Your task to perform on an android device: snooze an email in the gmail app Image 0: 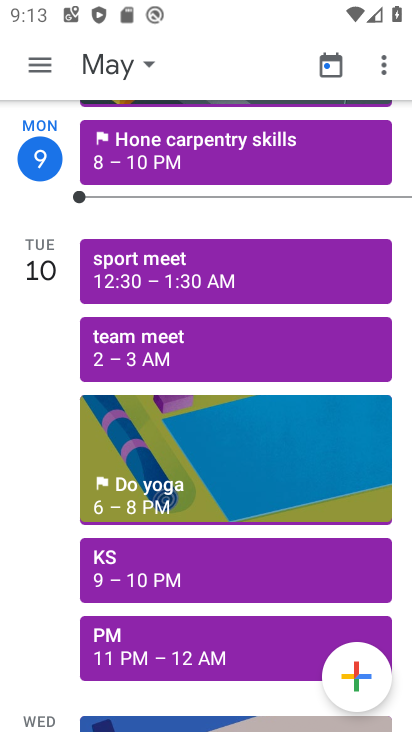
Step 0: press home button
Your task to perform on an android device: snooze an email in the gmail app Image 1: 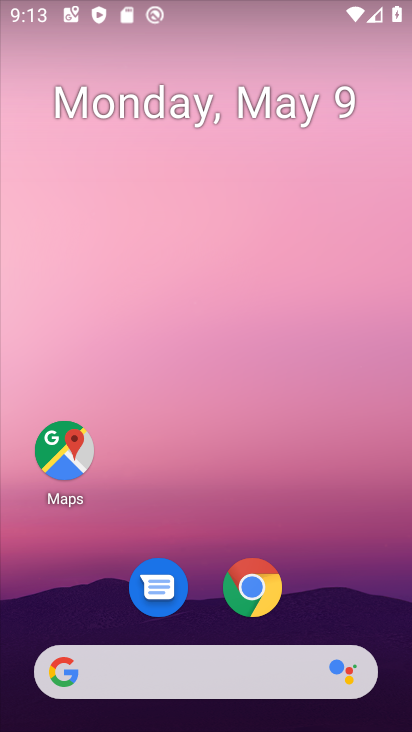
Step 1: drag from (205, 617) to (249, 63)
Your task to perform on an android device: snooze an email in the gmail app Image 2: 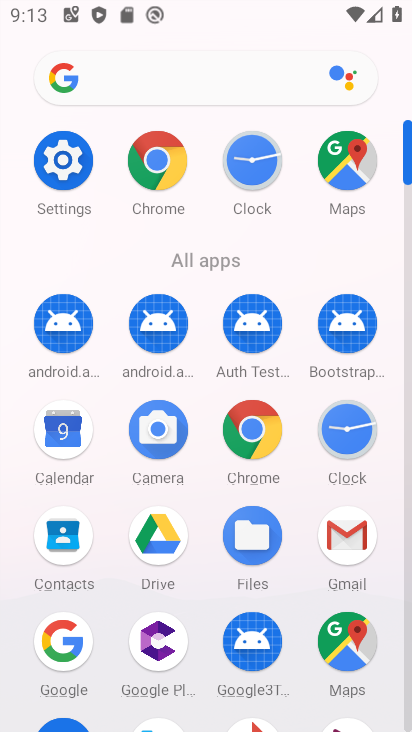
Step 2: click (367, 532)
Your task to perform on an android device: snooze an email in the gmail app Image 3: 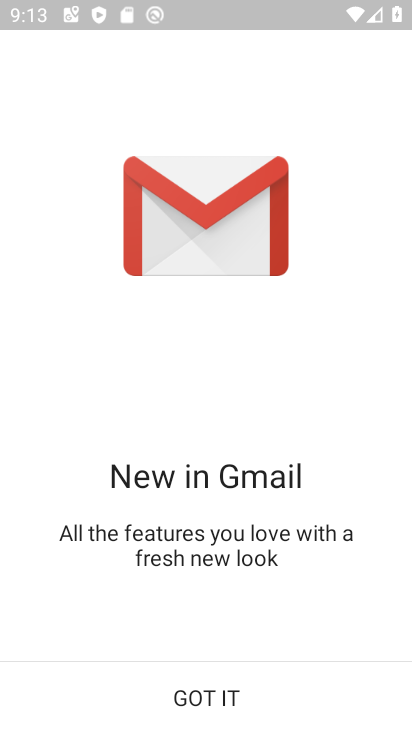
Step 3: click (210, 699)
Your task to perform on an android device: snooze an email in the gmail app Image 4: 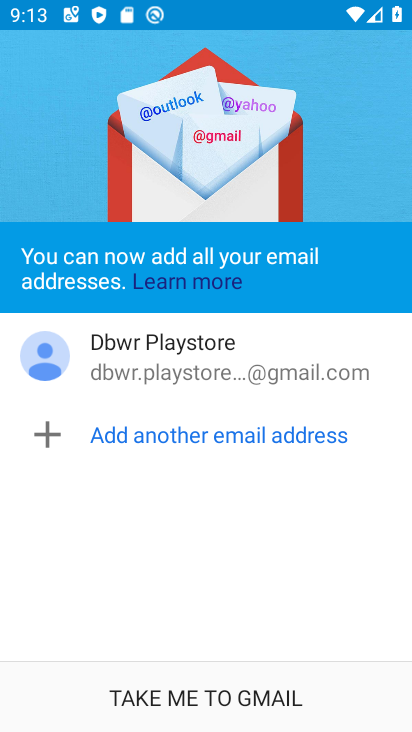
Step 4: click (210, 699)
Your task to perform on an android device: snooze an email in the gmail app Image 5: 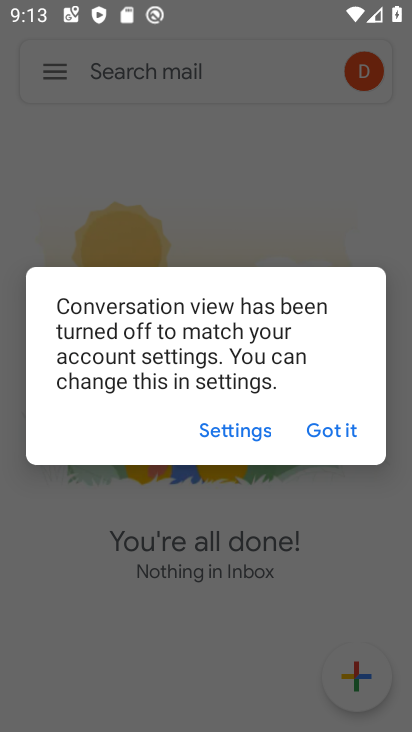
Step 5: click (330, 423)
Your task to perform on an android device: snooze an email in the gmail app Image 6: 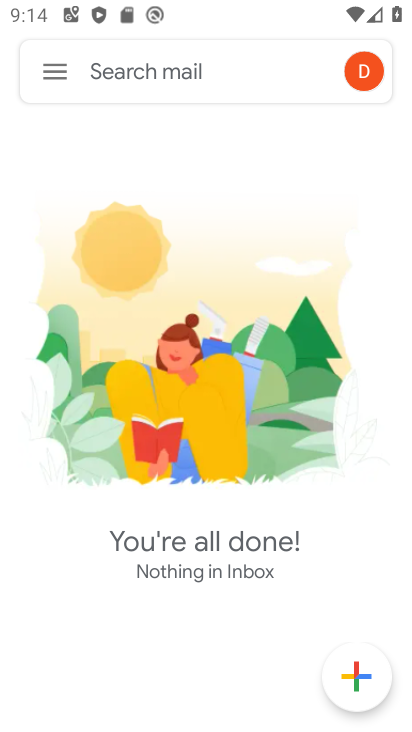
Step 6: task complete